Your task to perform on an android device: Open Google Chrome Image 0: 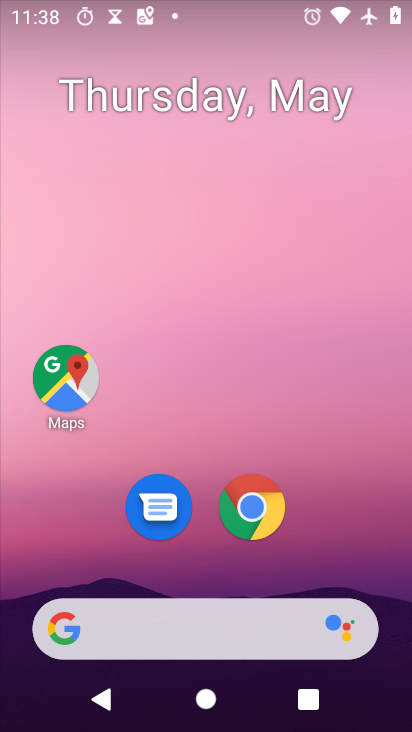
Step 0: drag from (334, 532) to (273, 66)
Your task to perform on an android device: Open Google Chrome Image 1: 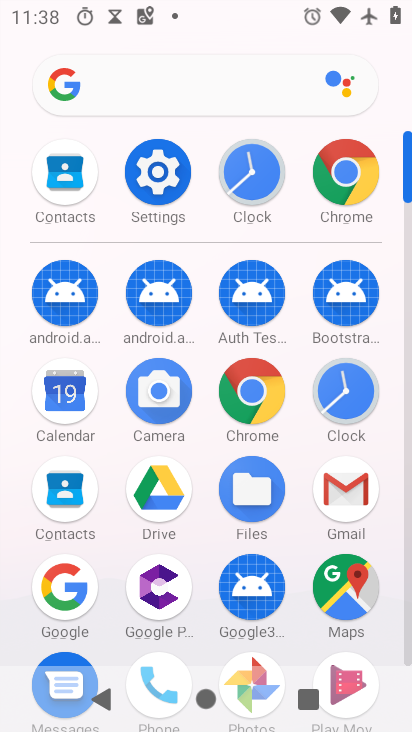
Step 1: drag from (23, 442) to (36, 150)
Your task to perform on an android device: Open Google Chrome Image 2: 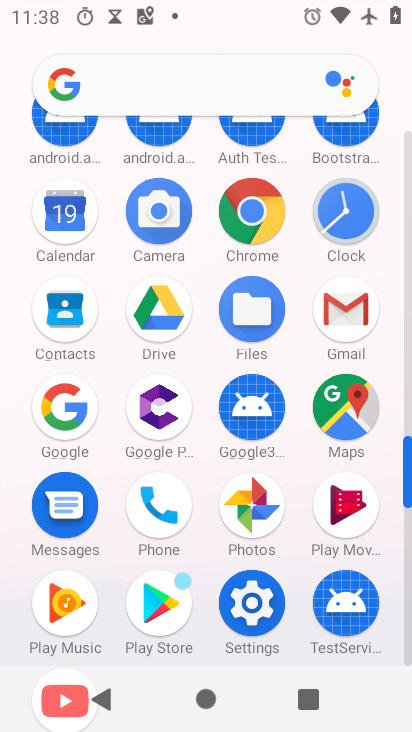
Step 2: click (239, 206)
Your task to perform on an android device: Open Google Chrome Image 3: 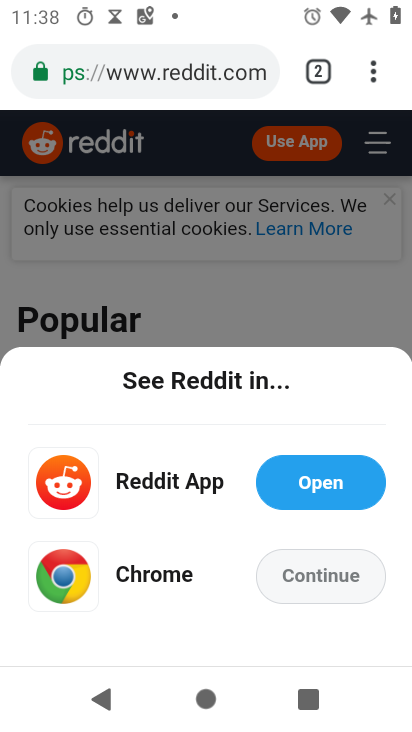
Step 3: task complete